Your task to perform on an android device: delete location history Image 0: 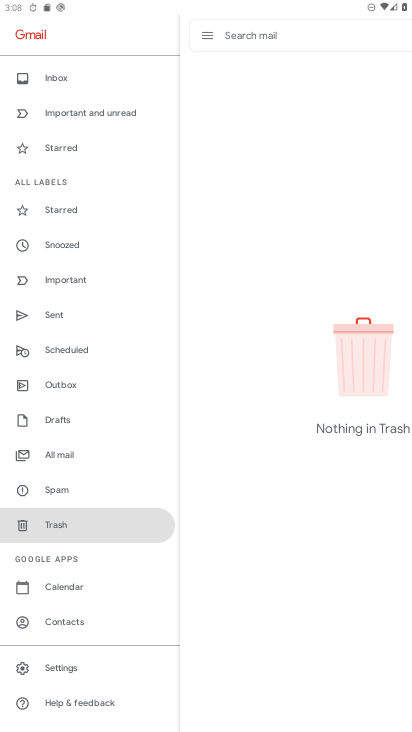
Step 0: press home button
Your task to perform on an android device: delete location history Image 1: 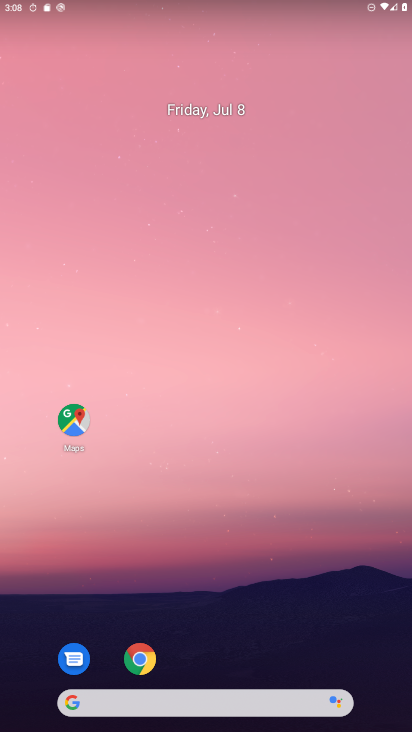
Step 1: click (264, 8)
Your task to perform on an android device: delete location history Image 2: 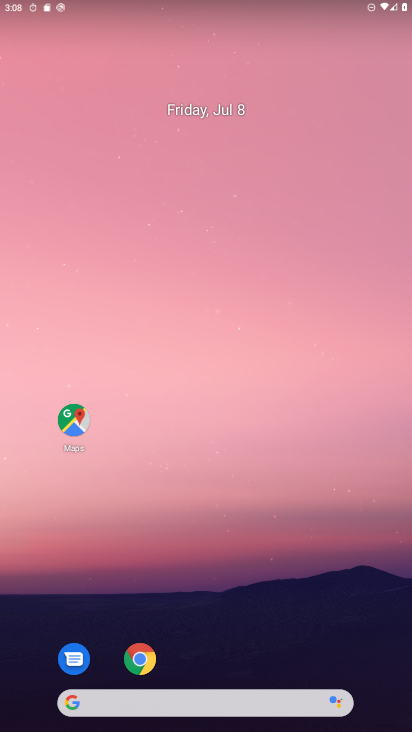
Step 2: click (73, 411)
Your task to perform on an android device: delete location history Image 3: 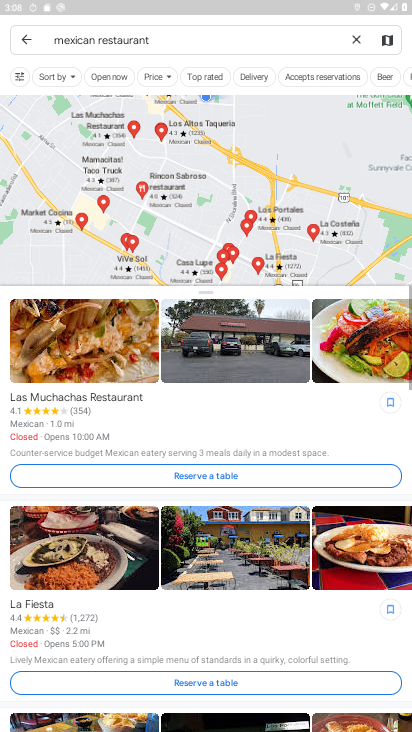
Step 3: click (25, 42)
Your task to perform on an android device: delete location history Image 4: 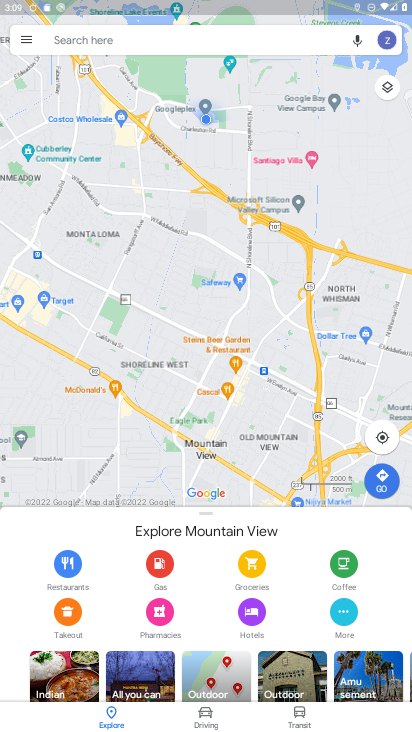
Step 4: click (25, 42)
Your task to perform on an android device: delete location history Image 5: 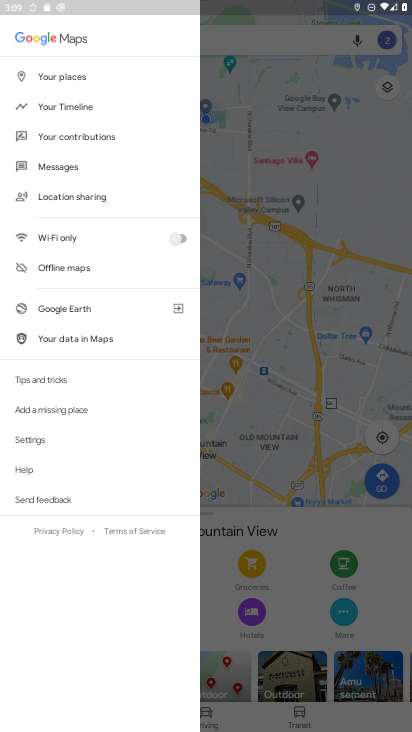
Step 5: click (47, 106)
Your task to perform on an android device: delete location history Image 6: 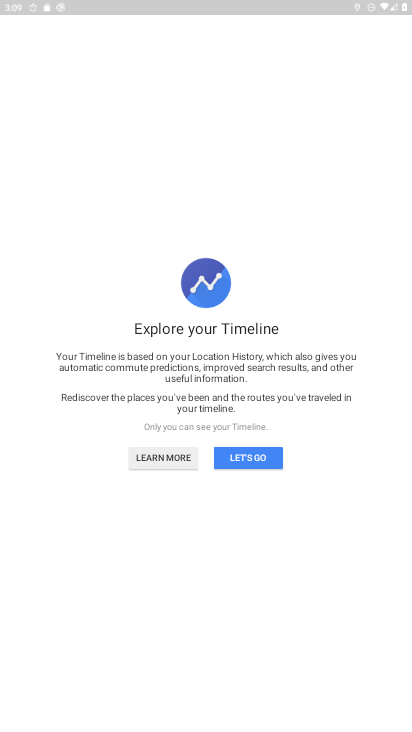
Step 6: click (254, 453)
Your task to perform on an android device: delete location history Image 7: 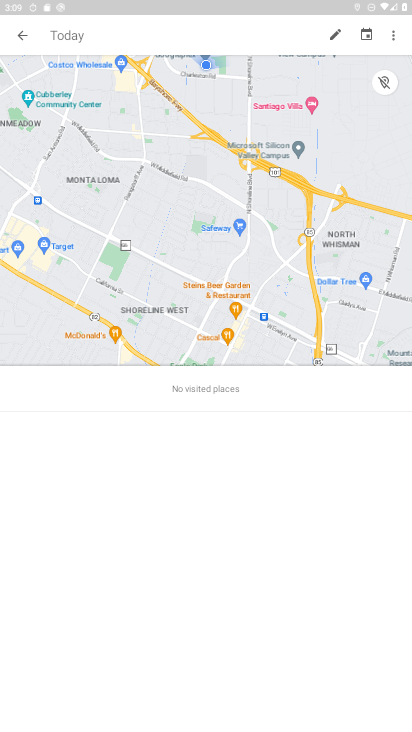
Step 7: click (394, 34)
Your task to perform on an android device: delete location history Image 8: 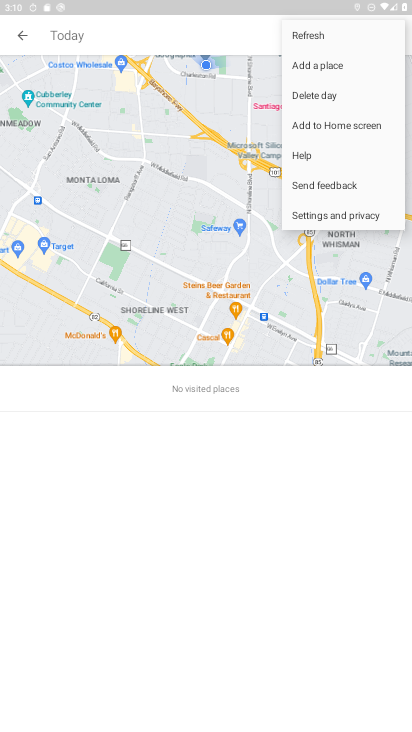
Step 8: click (325, 211)
Your task to perform on an android device: delete location history Image 9: 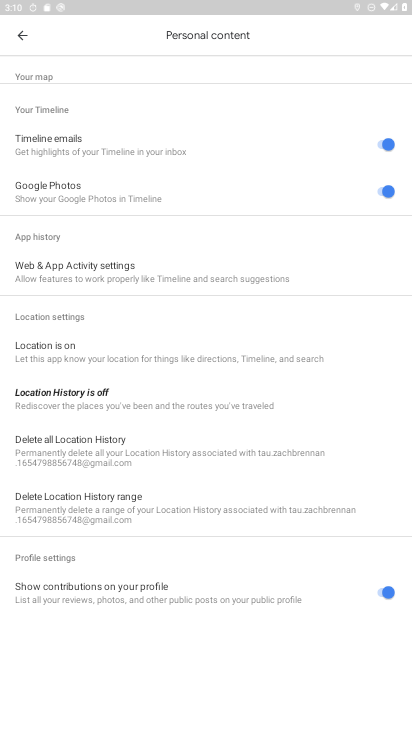
Step 9: click (112, 441)
Your task to perform on an android device: delete location history Image 10: 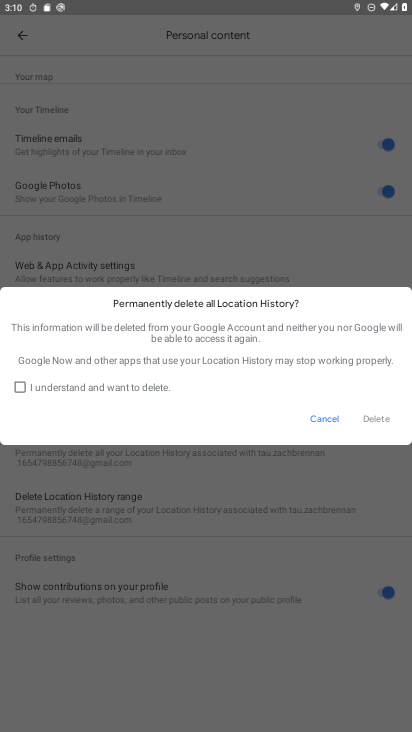
Step 10: click (141, 400)
Your task to perform on an android device: delete location history Image 11: 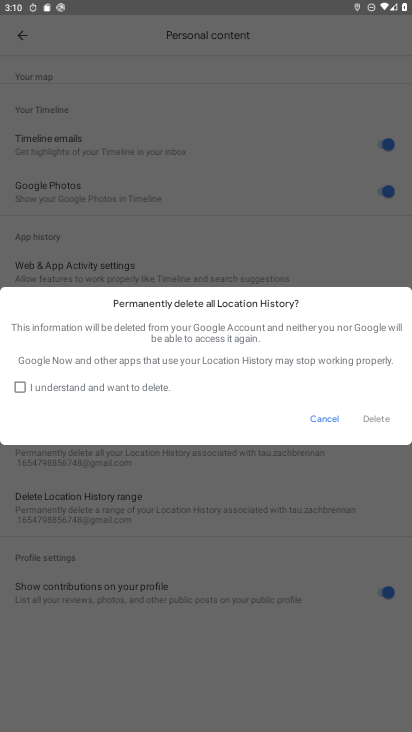
Step 11: click (34, 394)
Your task to perform on an android device: delete location history Image 12: 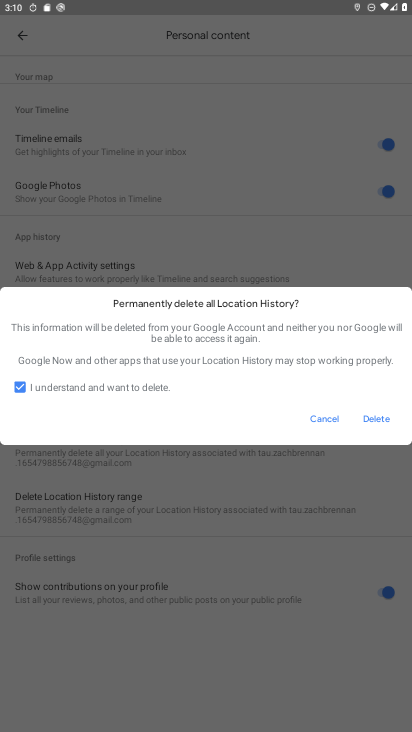
Step 12: click (379, 412)
Your task to perform on an android device: delete location history Image 13: 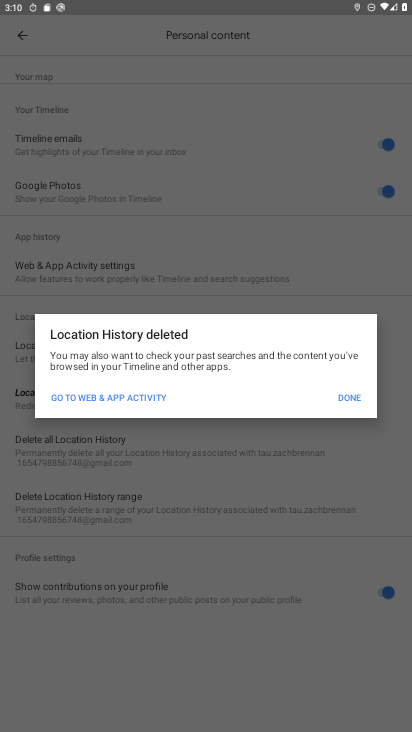
Step 13: click (347, 394)
Your task to perform on an android device: delete location history Image 14: 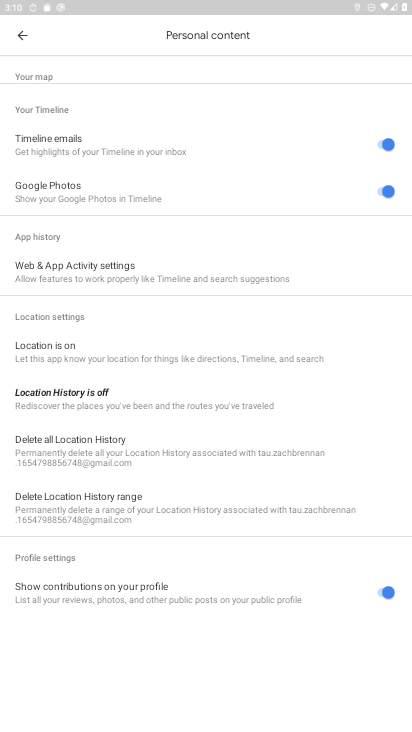
Step 14: task complete